Your task to perform on an android device: Go to sound settings Image 0: 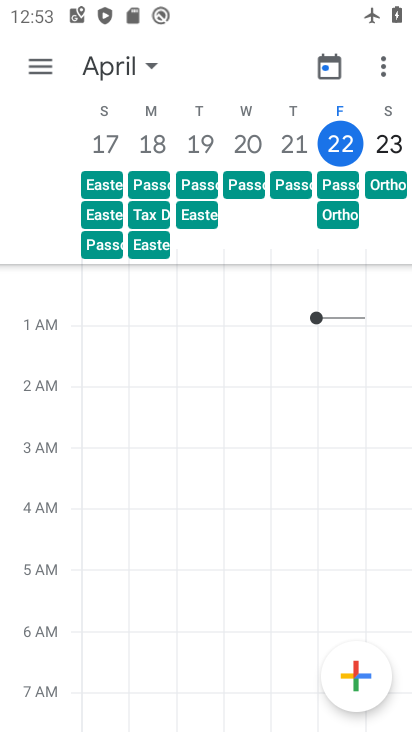
Step 0: press home button
Your task to perform on an android device: Go to sound settings Image 1: 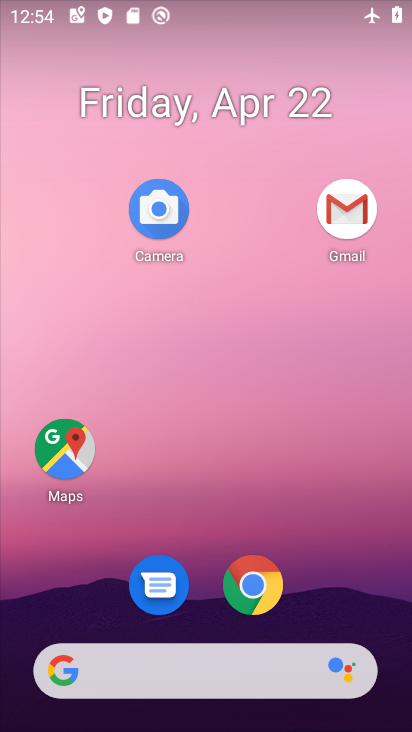
Step 1: drag from (338, 534) to (301, 168)
Your task to perform on an android device: Go to sound settings Image 2: 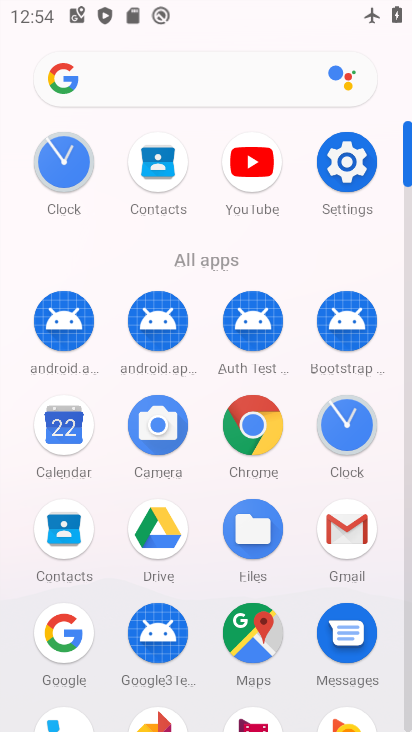
Step 2: click (343, 155)
Your task to perform on an android device: Go to sound settings Image 3: 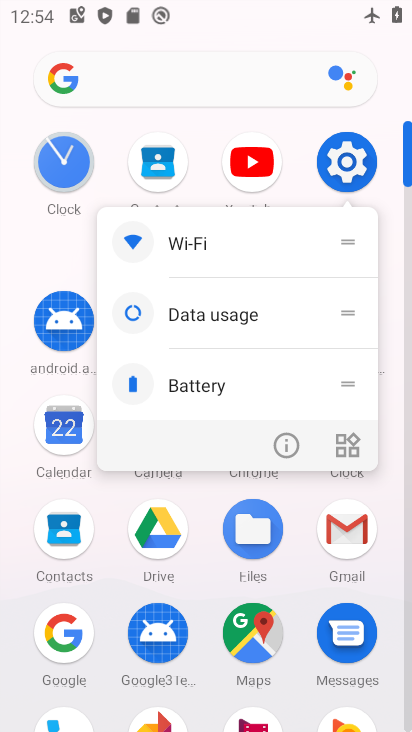
Step 3: click (343, 155)
Your task to perform on an android device: Go to sound settings Image 4: 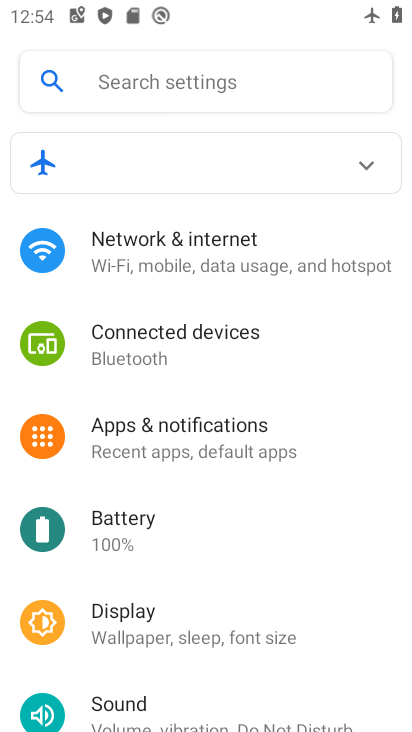
Step 4: drag from (228, 543) to (228, 264)
Your task to perform on an android device: Go to sound settings Image 5: 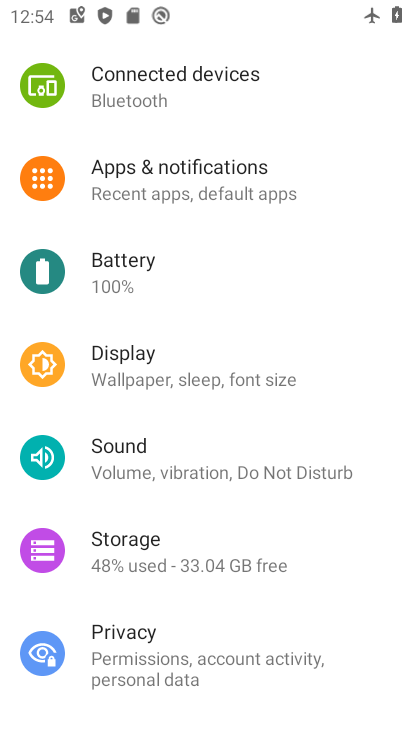
Step 5: click (199, 461)
Your task to perform on an android device: Go to sound settings Image 6: 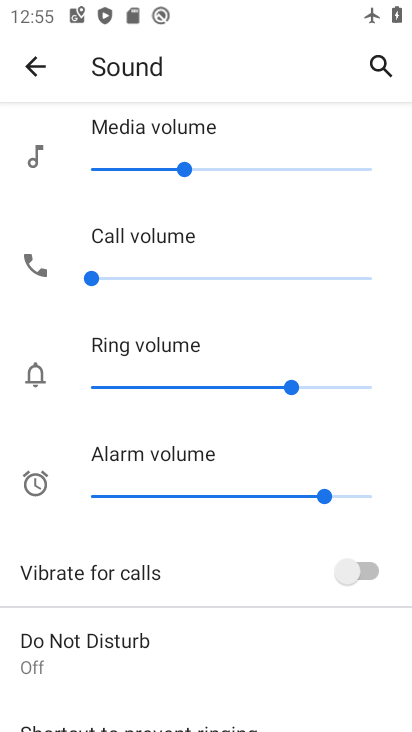
Step 6: task complete